Your task to perform on an android device: read, delete, or share a saved page in the chrome app Image 0: 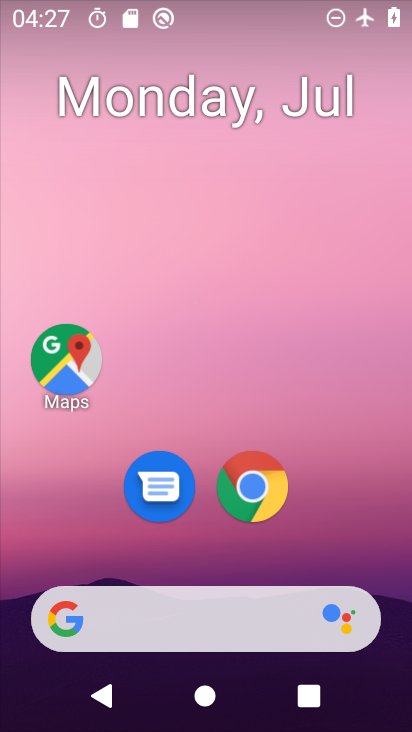
Step 0: click (262, 500)
Your task to perform on an android device: read, delete, or share a saved page in the chrome app Image 1: 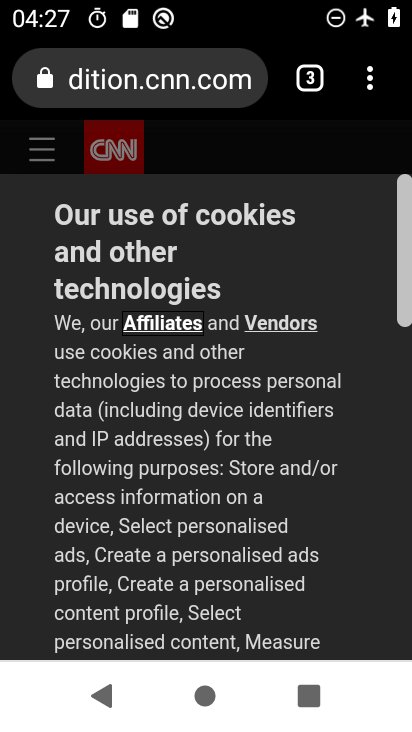
Step 1: drag from (365, 79) to (98, 509)
Your task to perform on an android device: read, delete, or share a saved page in the chrome app Image 2: 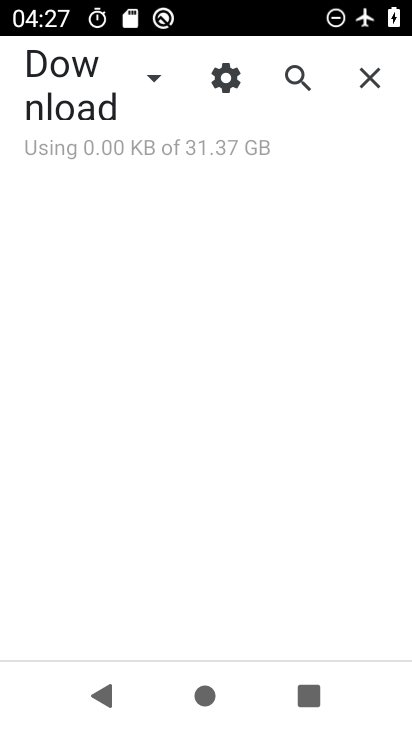
Step 2: click (157, 75)
Your task to perform on an android device: read, delete, or share a saved page in the chrome app Image 3: 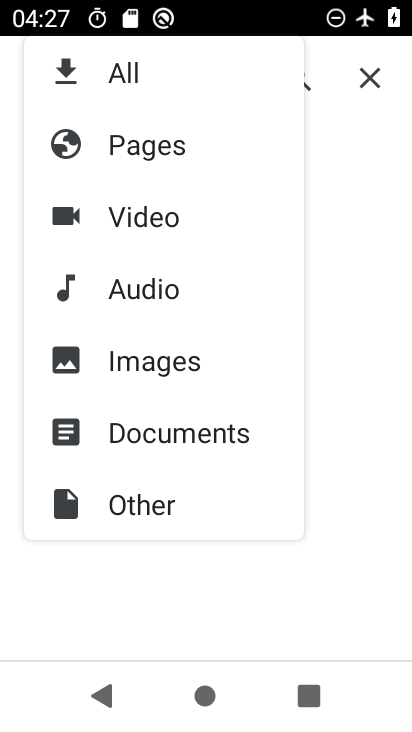
Step 3: click (169, 154)
Your task to perform on an android device: read, delete, or share a saved page in the chrome app Image 4: 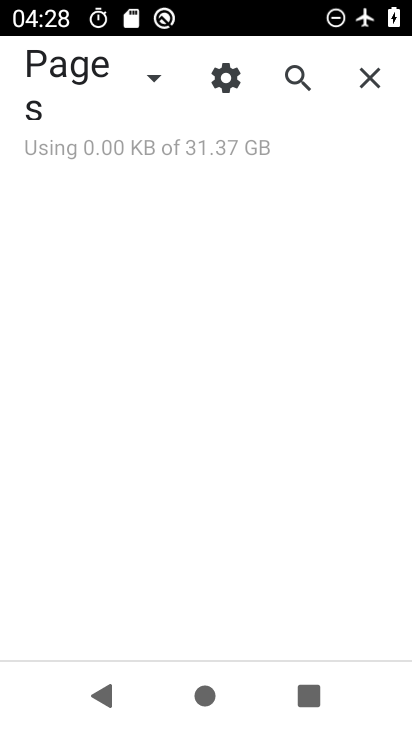
Step 4: task complete